Your task to perform on an android device: What's on my calendar tomorrow? Image 0: 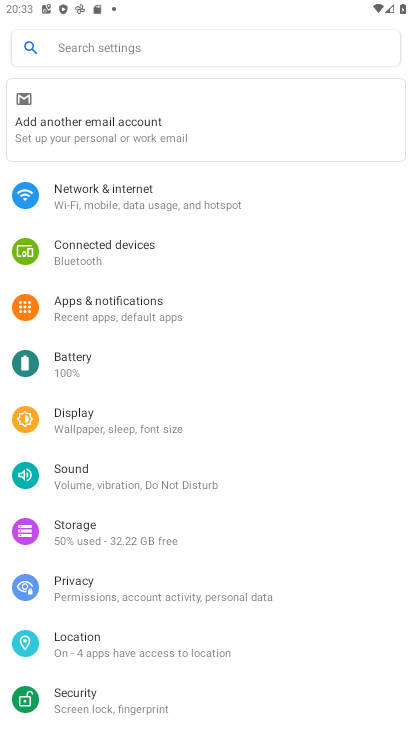
Step 0: press home button
Your task to perform on an android device: What's on my calendar tomorrow? Image 1: 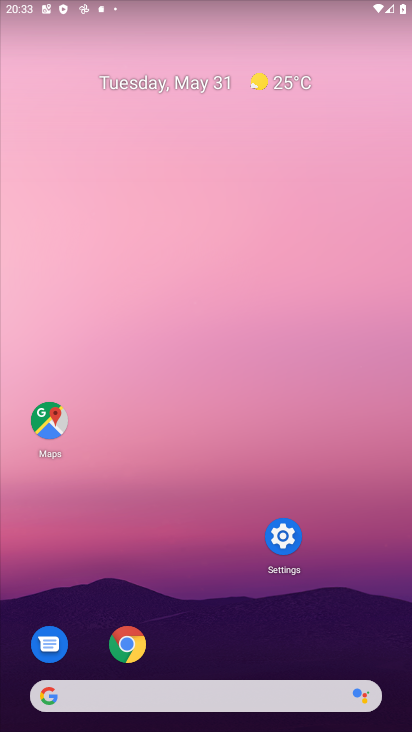
Step 1: drag from (226, 716) to (261, 157)
Your task to perform on an android device: What's on my calendar tomorrow? Image 2: 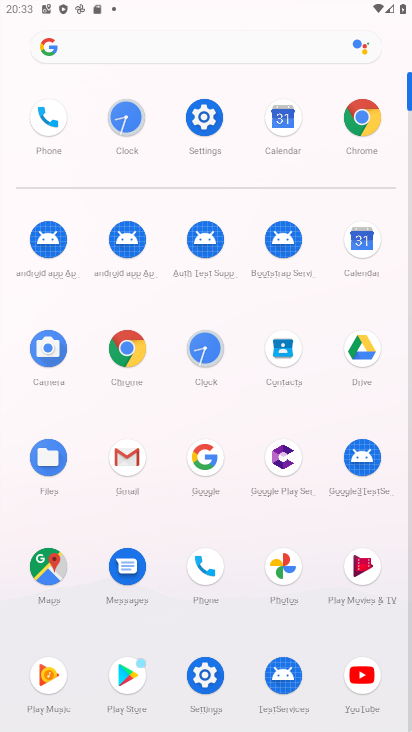
Step 2: click (355, 248)
Your task to perform on an android device: What's on my calendar tomorrow? Image 3: 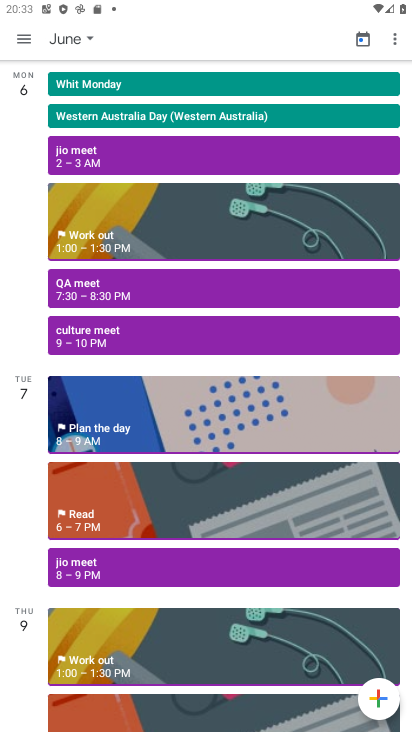
Step 3: click (30, 30)
Your task to perform on an android device: What's on my calendar tomorrow? Image 4: 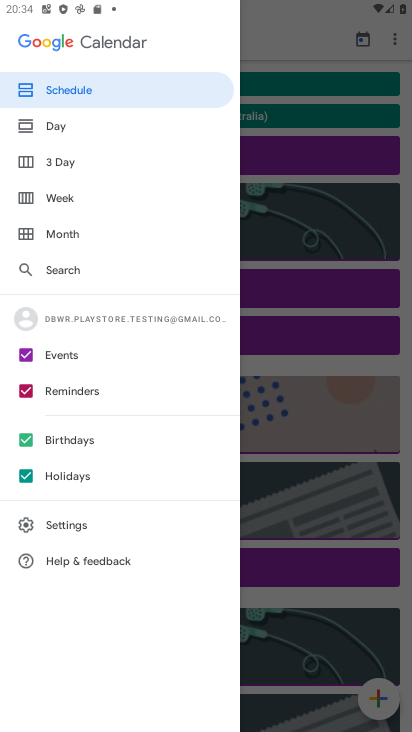
Step 4: click (61, 229)
Your task to perform on an android device: What's on my calendar tomorrow? Image 5: 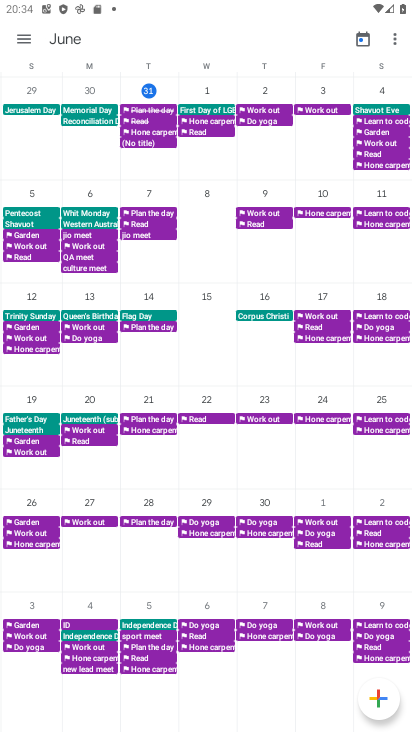
Step 5: click (213, 94)
Your task to perform on an android device: What's on my calendar tomorrow? Image 6: 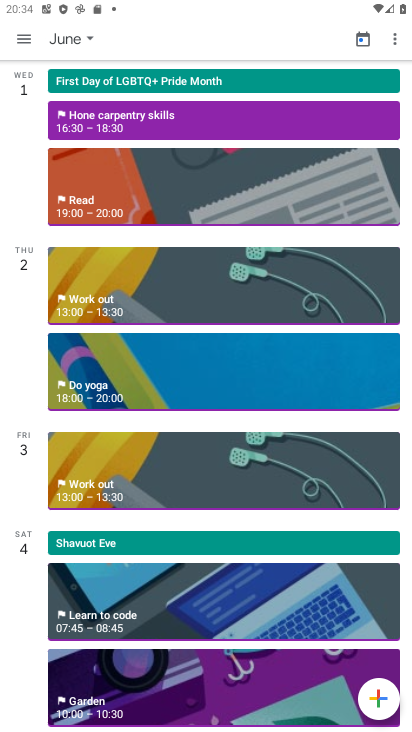
Step 6: task complete